Your task to perform on an android device: toggle location history Image 0: 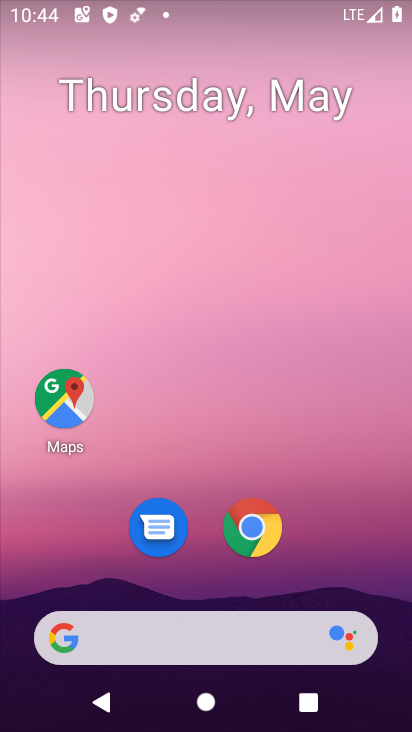
Step 0: drag from (344, 506) to (313, 118)
Your task to perform on an android device: toggle location history Image 1: 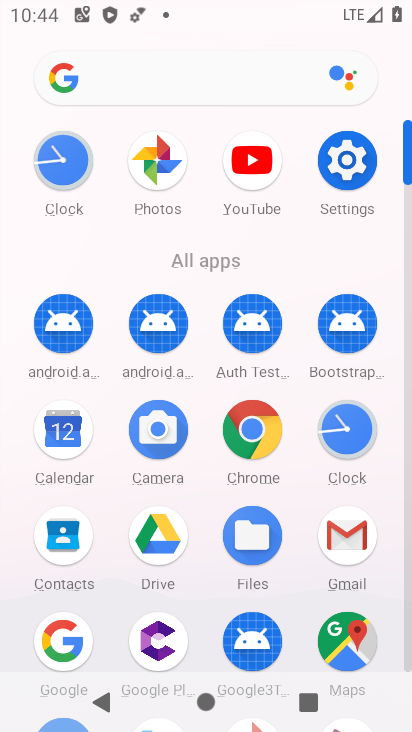
Step 1: click (357, 180)
Your task to perform on an android device: toggle location history Image 2: 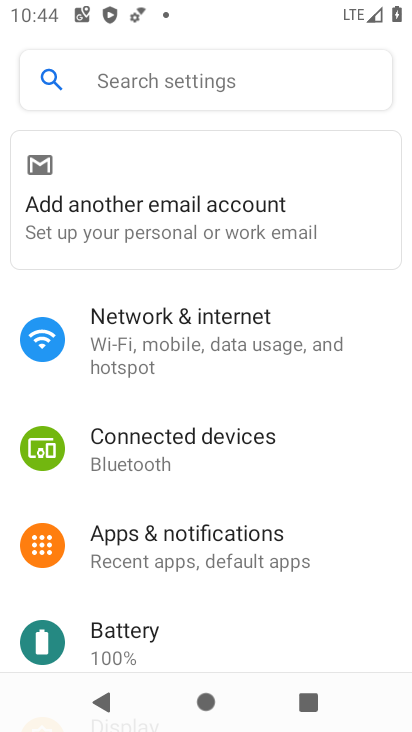
Step 2: drag from (251, 511) to (210, 17)
Your task to perform on an android device: toggle location history Image 3: 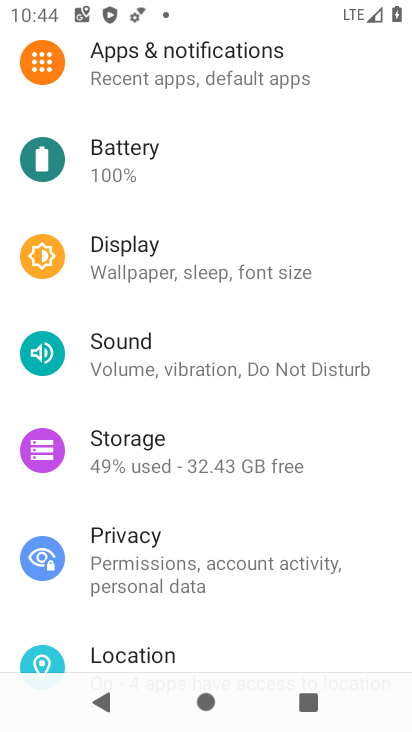
Step 3: drag from (227, 489) to (258, 131)
Your task to perform on an android device: toggle location history Image 4: 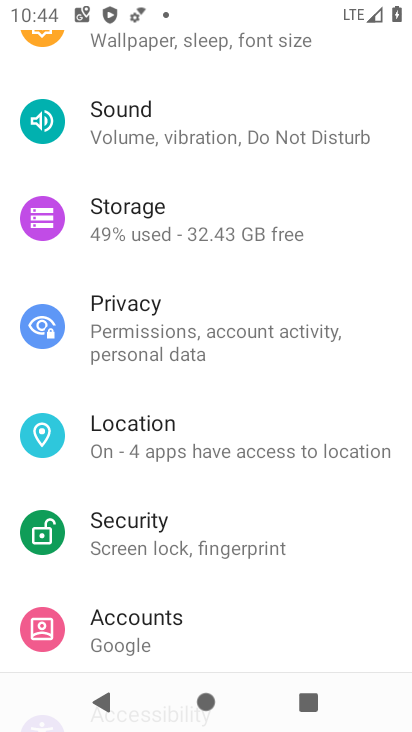
Step 4: click (155, 439)
Your task to perform on an android device: toggle location history Image 5: 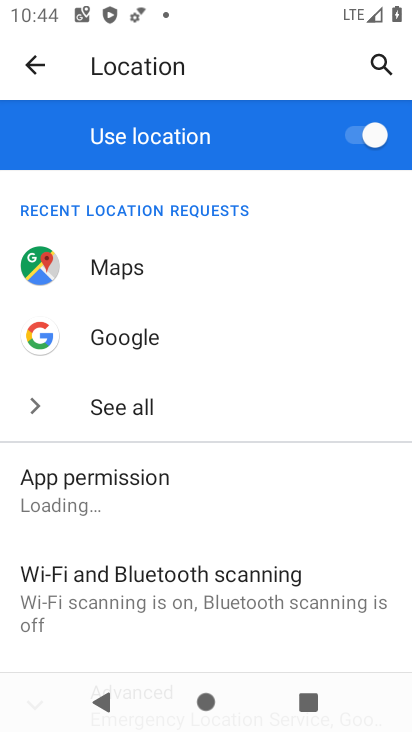
Step 5: click (373, 129)
Your task to perform on an android device: toggle location history Image 6: 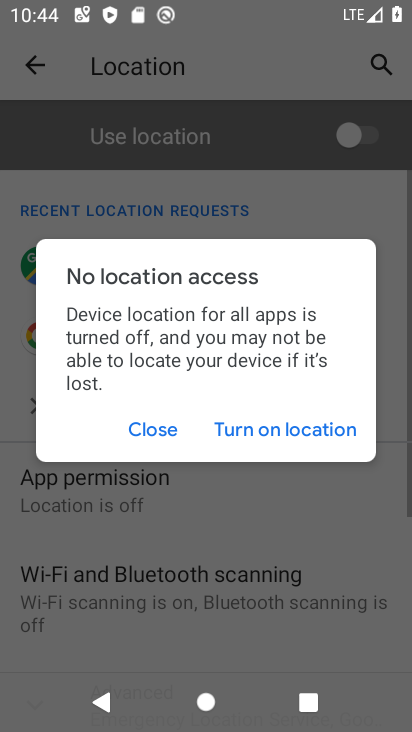
Step 6: task complete